Your task to perform on an android device: Open Reddit.com Image 0: 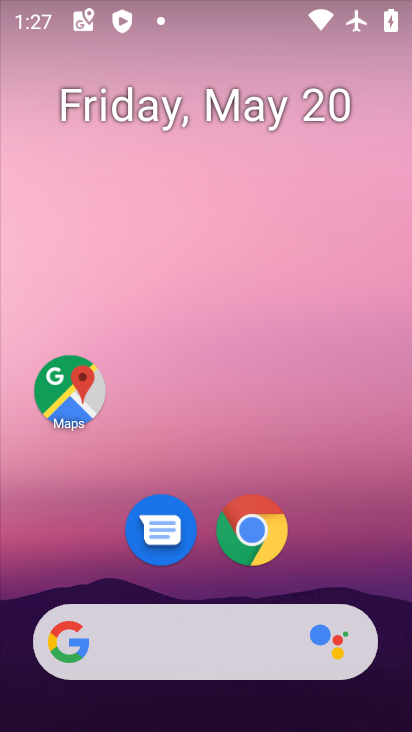
Step 0: click (215, 632)
Your task to perform on an android device: Open Reddit.com Image 1: 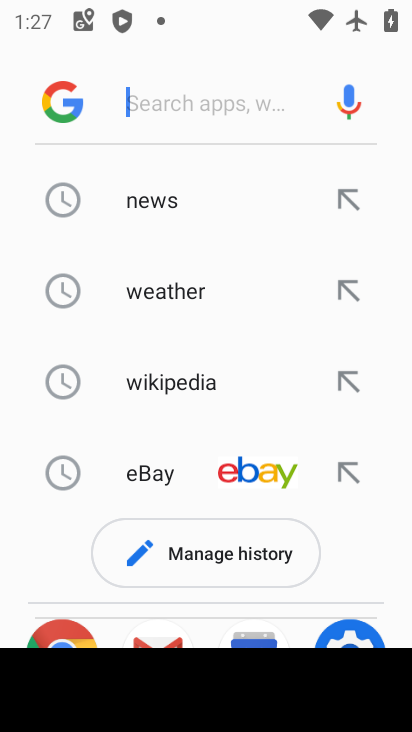
Step 1: type "reddit.com"
Your task to perform on an android device: Open Reddit.com Image 2: 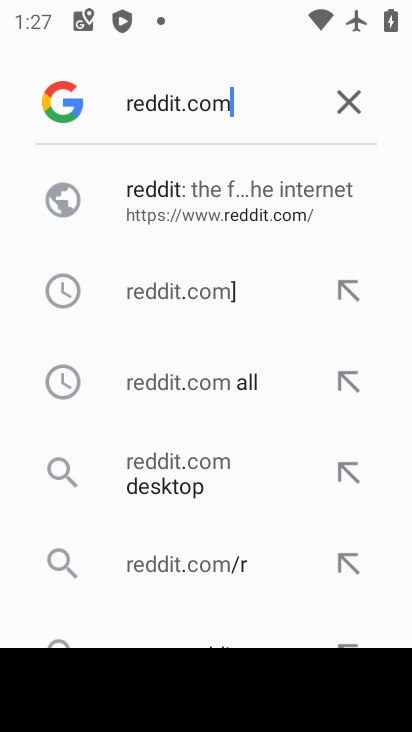
Step 2: click (291, 192)
Your task to perform on an android device: Open Reddit.com Image 3: 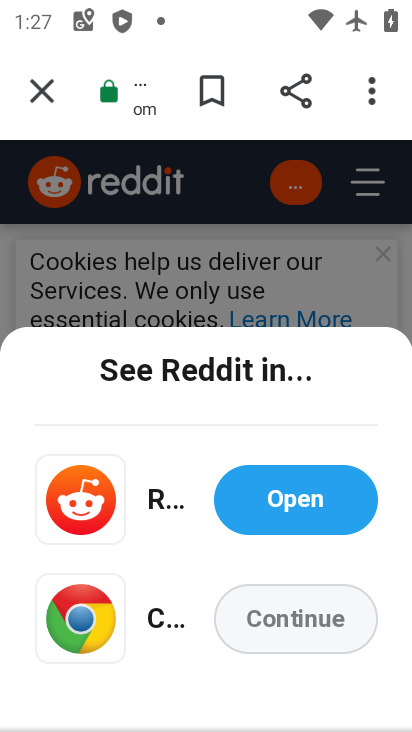
Step 3: task complete